Your task to perform on an android device: Search for Mexican restaurants on Maps Image 0: 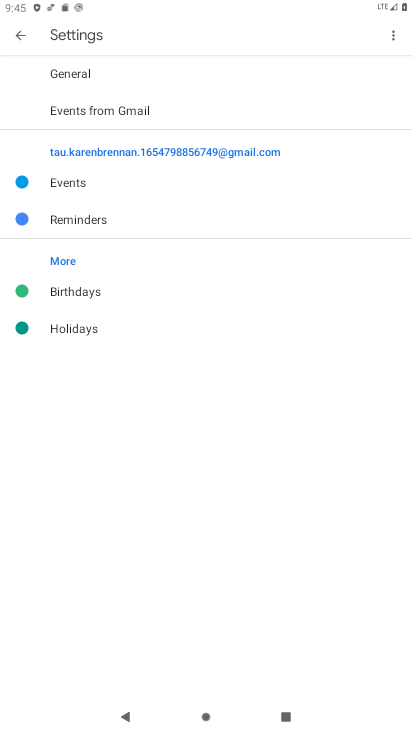
Step 0: press home button
Your task to perform on an android device: Search for Mexican restaurants on Maps Image 1: 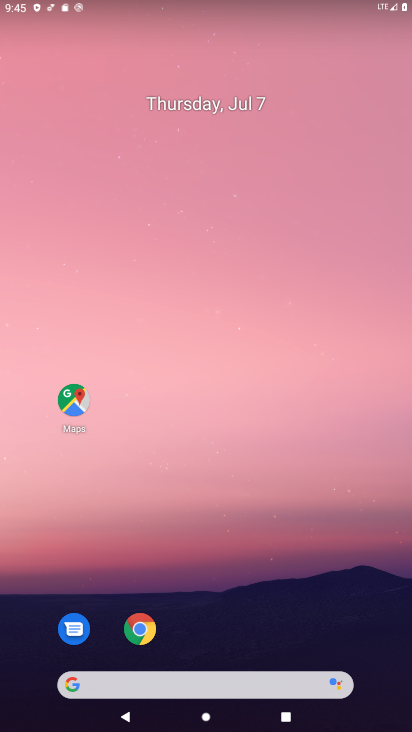
Step 1: drag from (216, 326) to (244, 134)
Your task to perform on an android device: Search for Mexican restaurants on Maps Image 2: 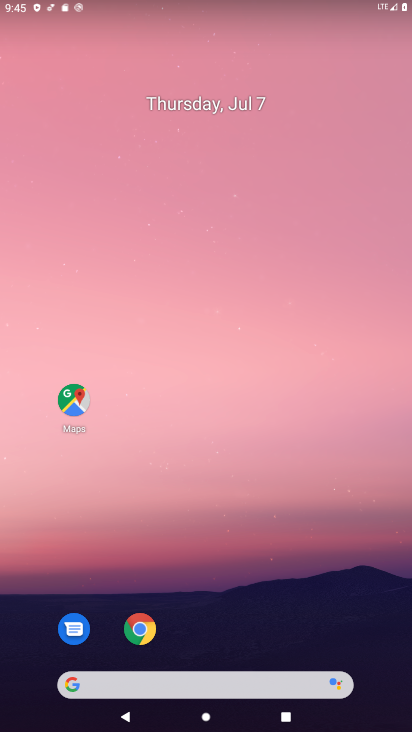
Step 2: drag from (192, 675) to (308, 1)
Your task to perform on an android device: Search for Mexican restaurants on Maps Image 3: 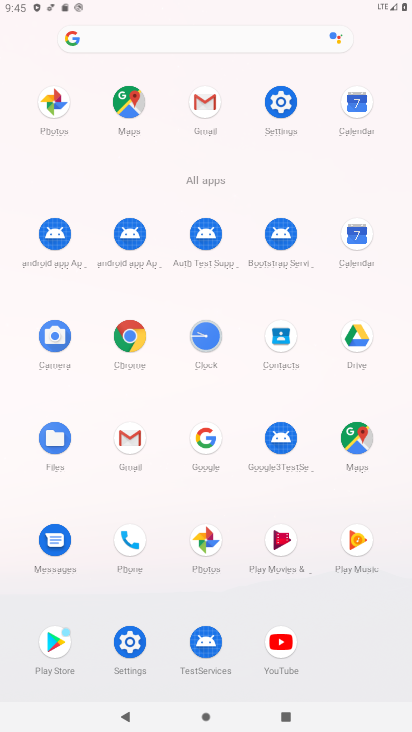
Step 3: click (362, 443)
Your task to perform on an android device: Search for Mexican restaurants on Maps Image 4: 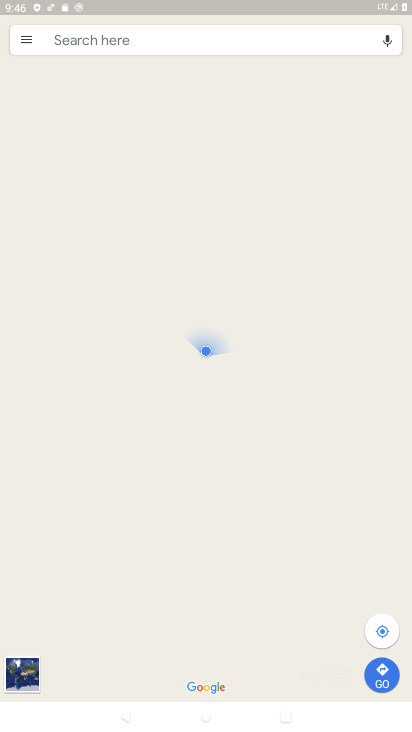
Step 4: click (137, 36)
Your task to perform on an android device: Search for Mexican restaurants on Maps Image 5: 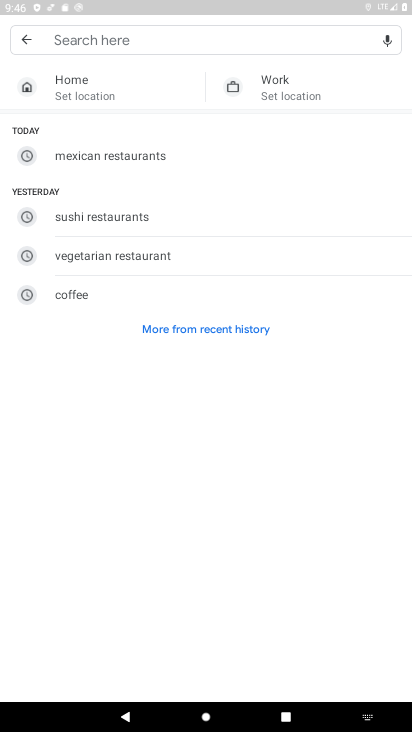
Step 5: type "Mexican restaurants"
Your task to perform on an android device: Search for Mexican restaurants on Maps Image 6: 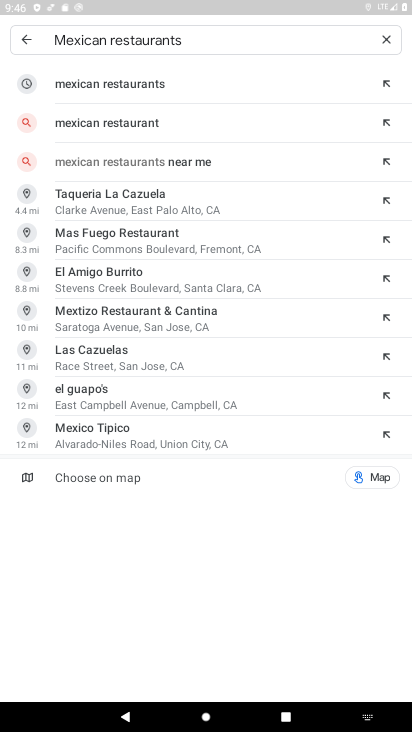
Step 6: click (161, 74)
Your task to perform on an android device: Search for Mexican restaurants on Maps Image 7: 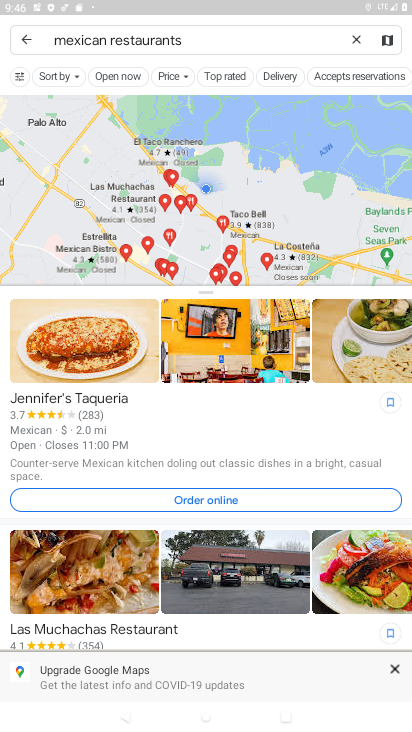
Step 7: task complete